Your task to perform on an android device: Empty the shopping cart on ebay. Image 0: 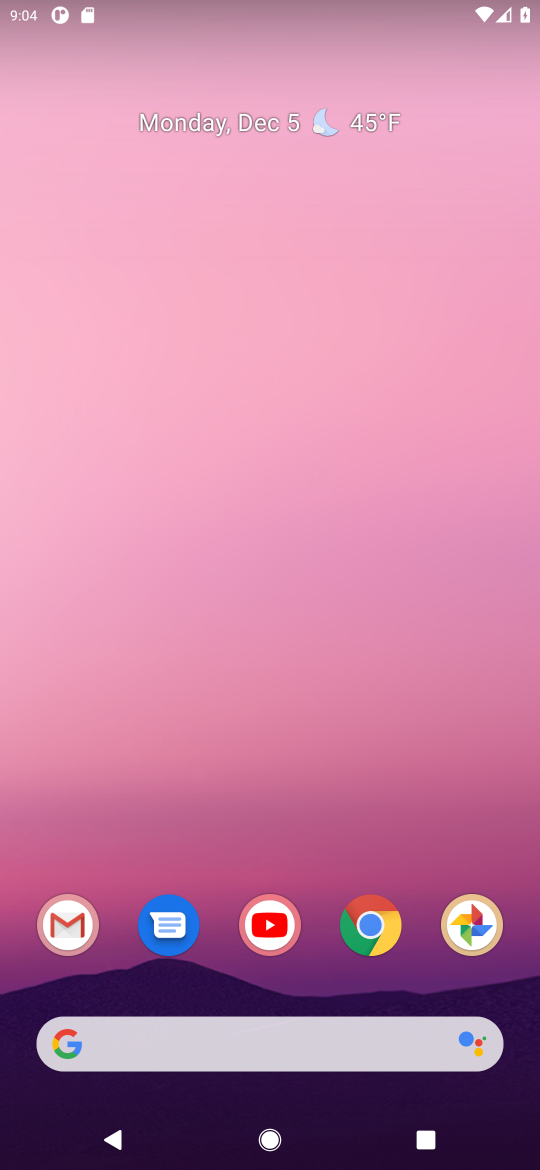
Step 0: click (373, 924)
Your task to perform on an android device: Empty the shopping cart on ebay. Image 1: 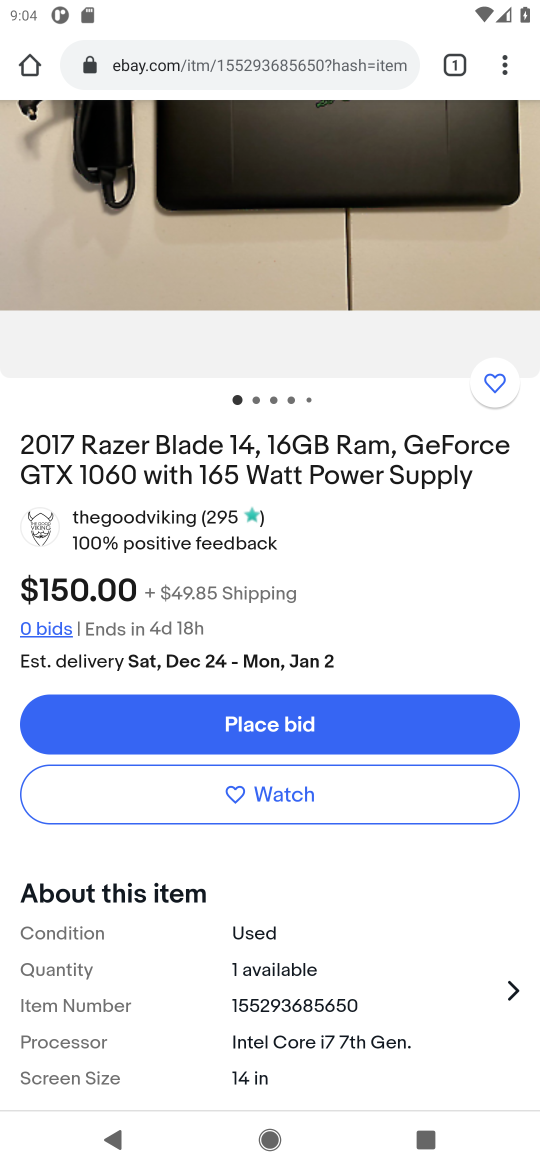
Step 1: drag from (424, 224) to (369, 762)
Your task to perform on an android device: Empty the shopping cart on ebay. Image 2: 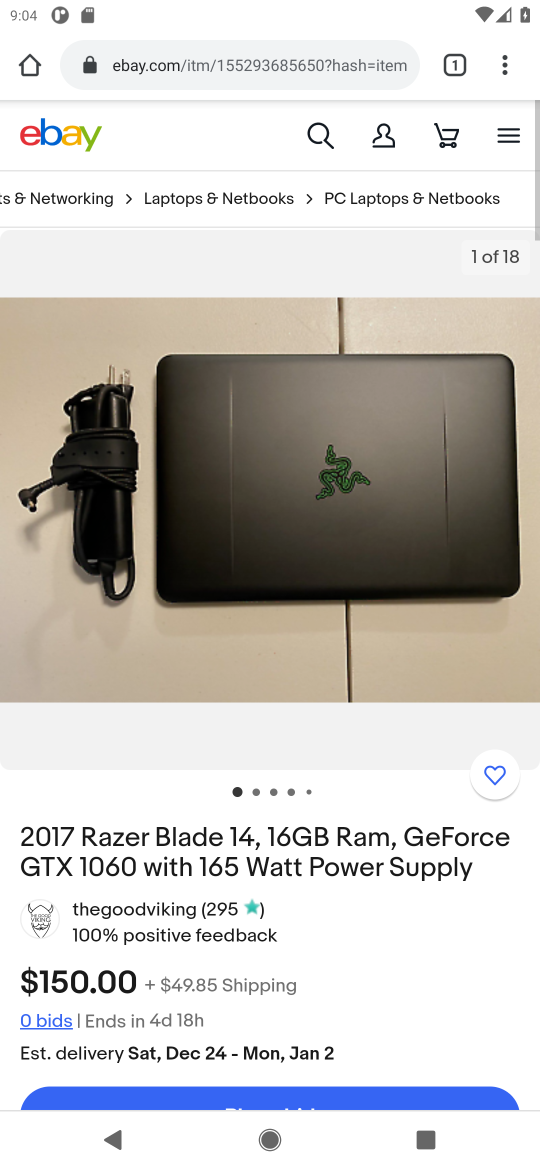
Step 2: drag from (405, 387) to (379, 799)
Your task to perform on an android device: Empty the shopping cart on ebay. Image 3: 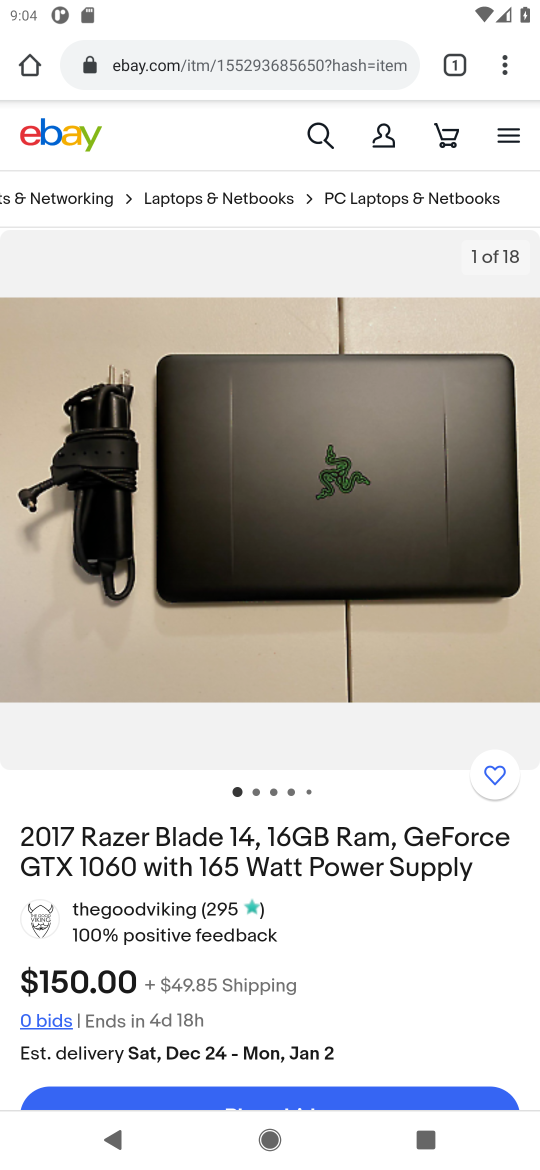
Step 3: click (445, 139)
Your task to perform on an android device: Empty the shopping cart on ebay. Image 4: 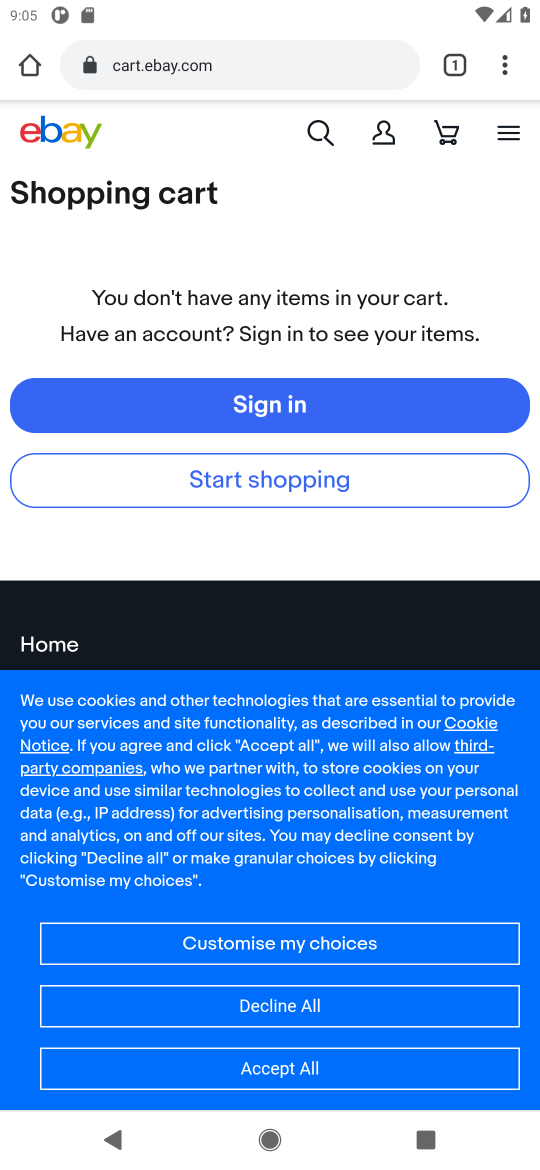
Step 4: task complete